Your task to perform on an android device: turn off smart reply in the gmail app Image 0: 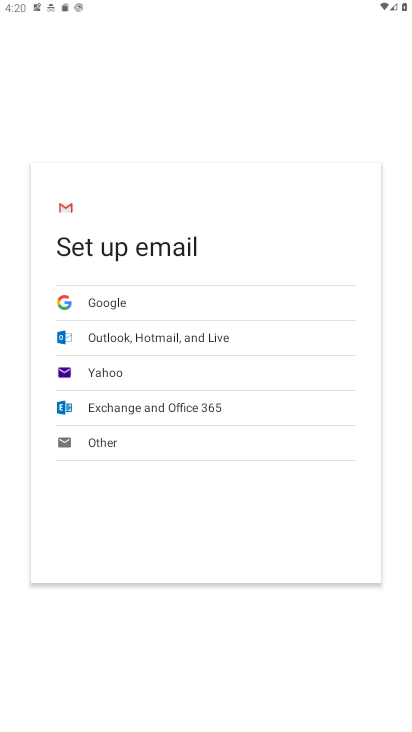
Step 0: press home button
Your task to perform on an android device: turn off smart reply in the gmail app Image 1: 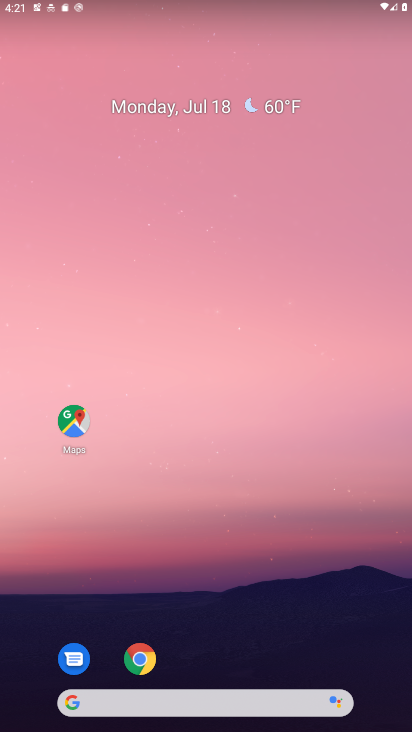
Step 1: drag from (268, 696) to (262, 30)
Your task to perform on an android device: turn off smart reply in the gmail app Image 2: 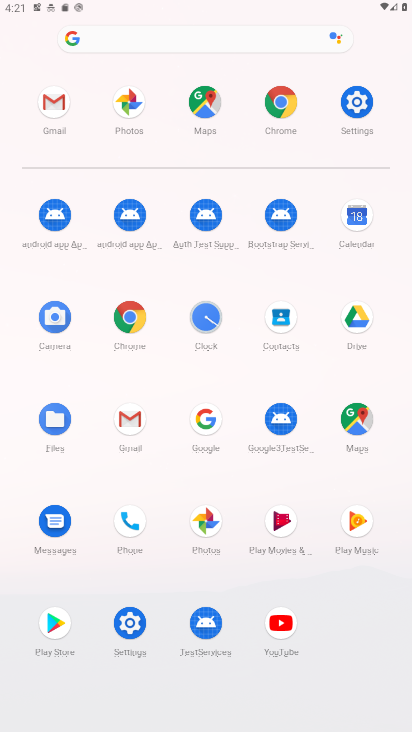
Step 2: click (129, 427)
Your task to perform on an android device: turn off smart reply in the gmail app Image 3: 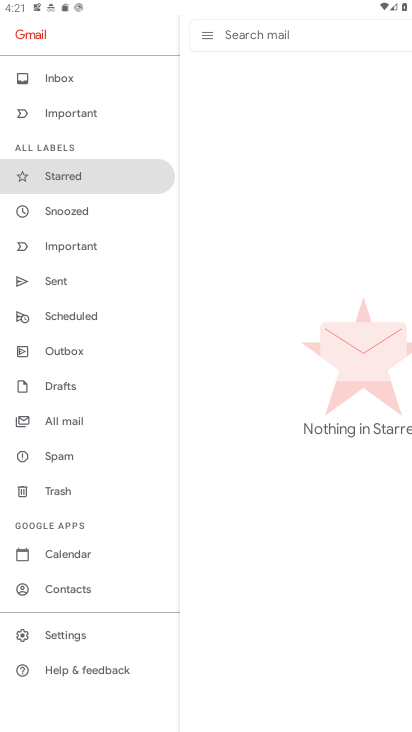
Step 3: click (88, 629)
Your task to perform on an android device: turn off smart reply in the gmail app Image 4: 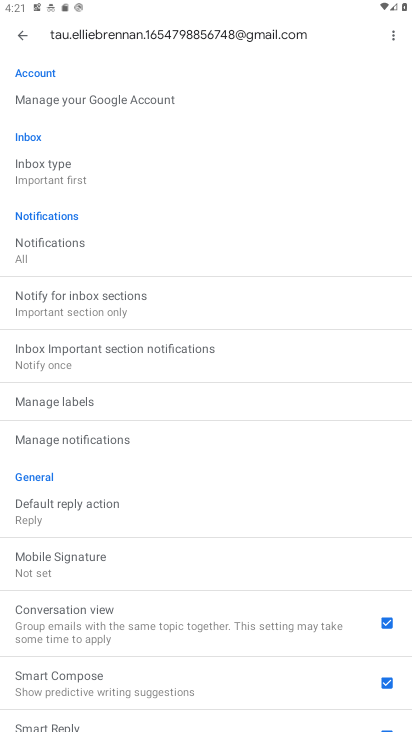
Step 4: drag from (176, 633) to (197, 206)
Your task to perform on an android device: turn off smart reply in the gmail app Image 5: 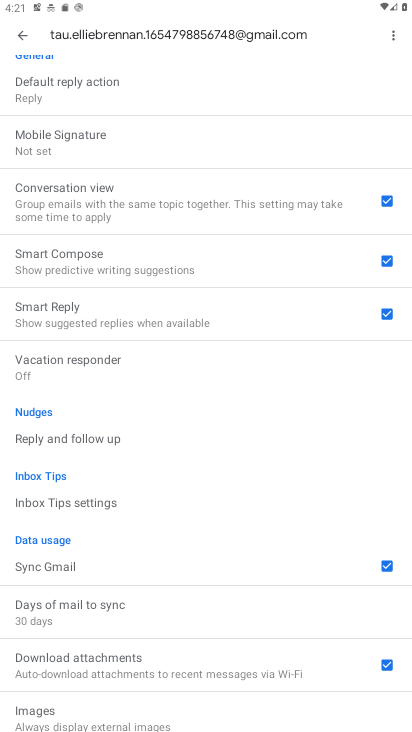
Step 5: click (387, 313)
Your task to perform on an android device: turn off smart reply in the gmail app Image 6: 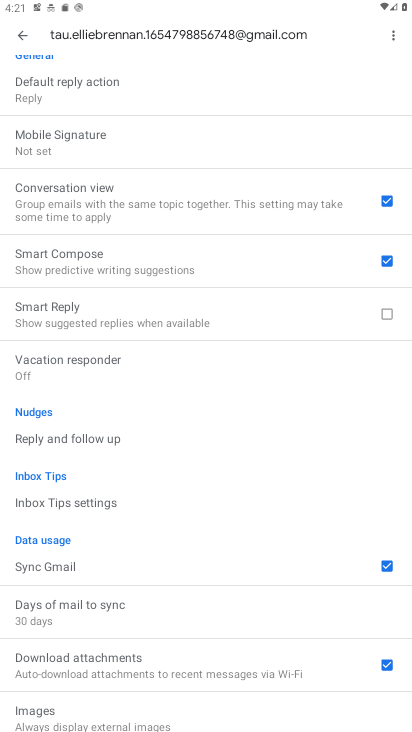
Step 6: task complete